Your task to perform on an android device: turn off javascript in the chrome app Image 0: 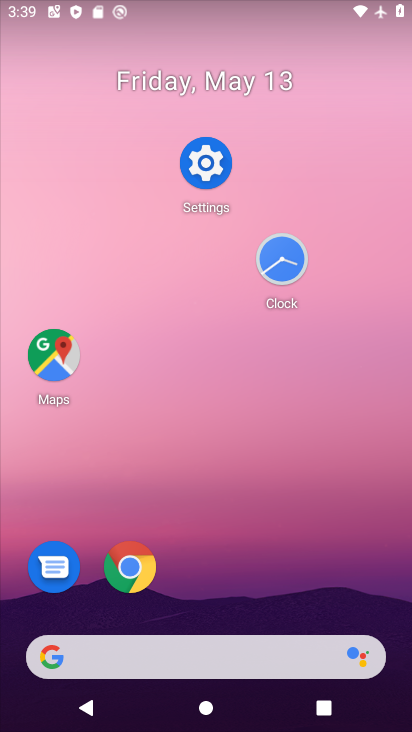
Step 0: click (132, 592)
Your task to perform on an android device: turn off javascript in the chrome app Image 1: 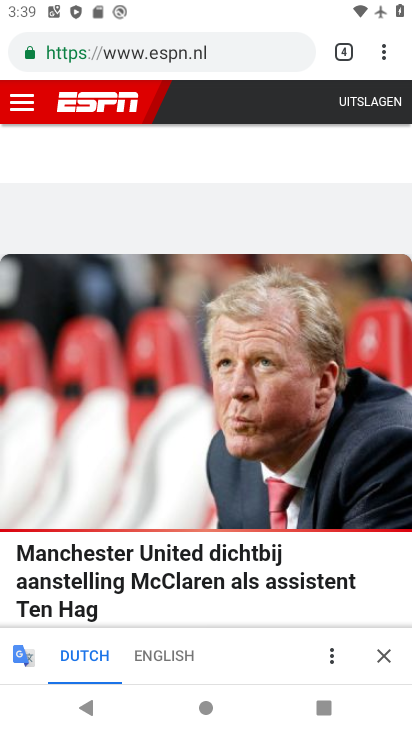
Step 1: click (384, 37)
Your task to perform on an android device: turn off javascript in the chrome app Image 2: 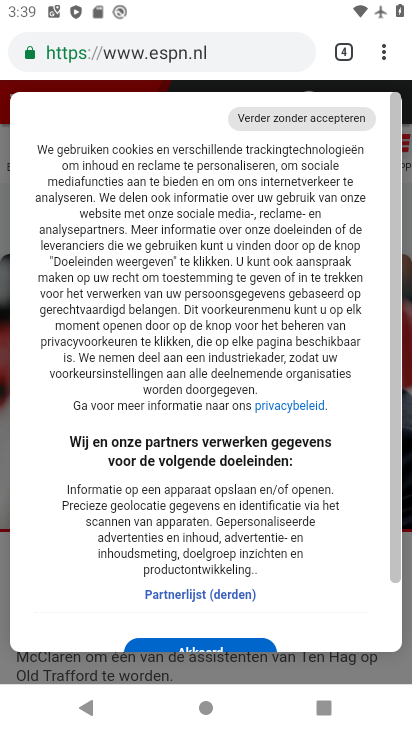
Step 2: click (385, 55)
Your task to perform on an android device: turn off javascript in the chrome app Image 3: 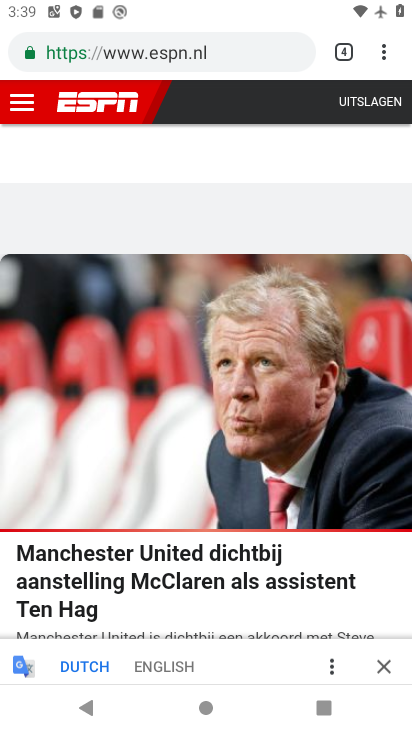
Step 3: click (387, 67)
Your task to perform on an android device: turn off javascript in the chrome app Image 4: 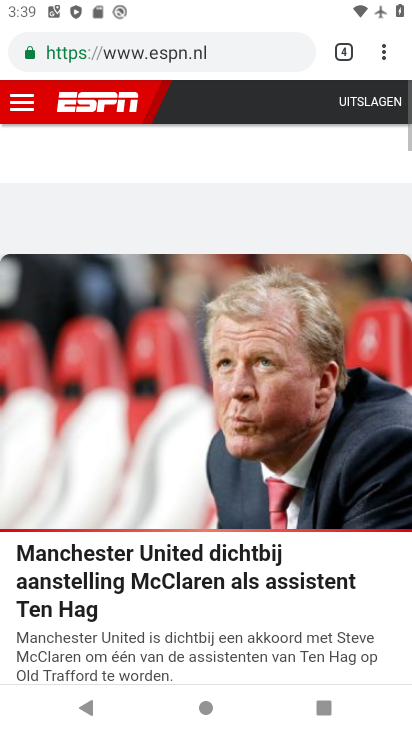
Step 4: click (384, 56)
Your task to perform on an android device: turn off javascript in the chrome app Image 5: 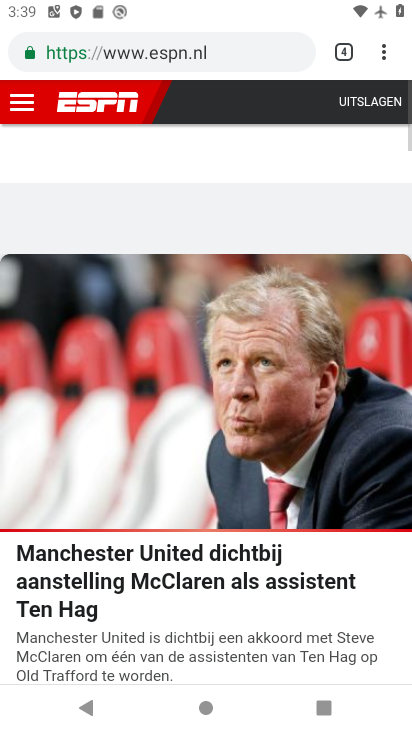
Step 5: click (384, 44)
Your task to perform on an android device: turn off javascript in the chrome app Image 6: 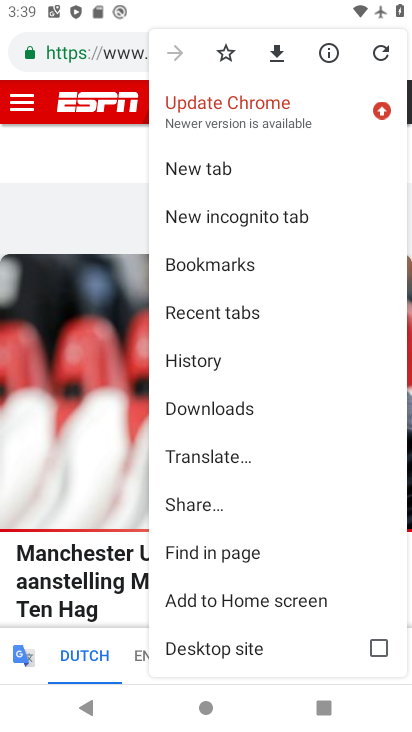
Step 6: drag from (159, 618) to (210, 425)
Your task to perform on an android device: turn off javascript in the chrome app Image 7: 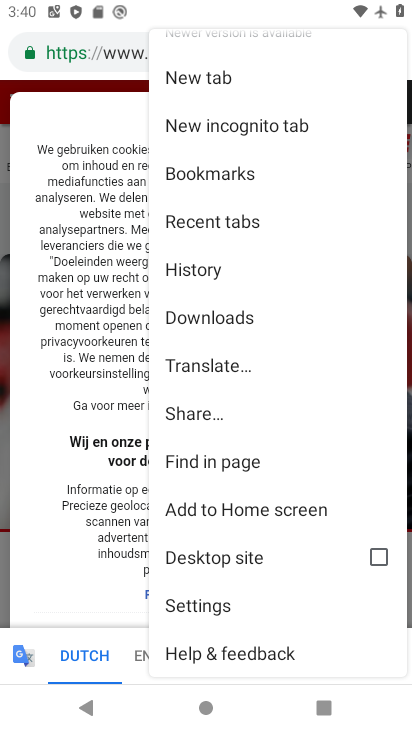
Step 7: click (217, 594)
Your task to perform on an android device: turn off javascript in the chrome app Image 8: 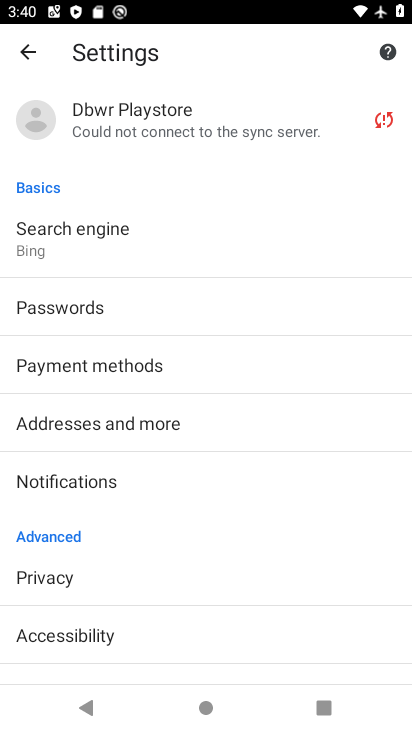
Step 8: drag from (217, 594) to (222, 147)
Your task to perform on an android device: turn off javascript in the chrome app Image 9: 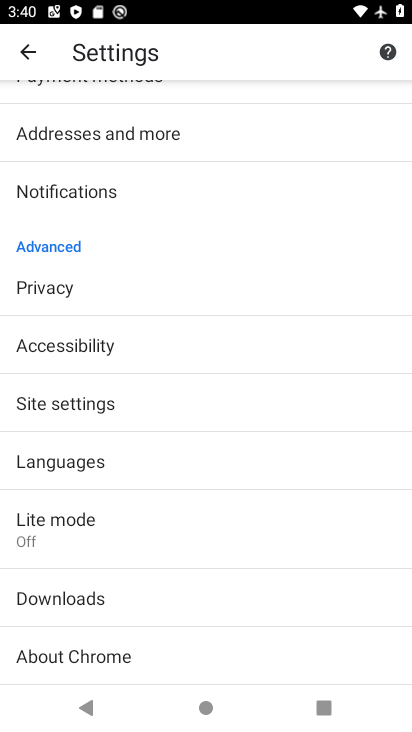
Step 9: click (183, 411)
Your task to perform on an android device: turn off javascript in the chrome app Image 10: 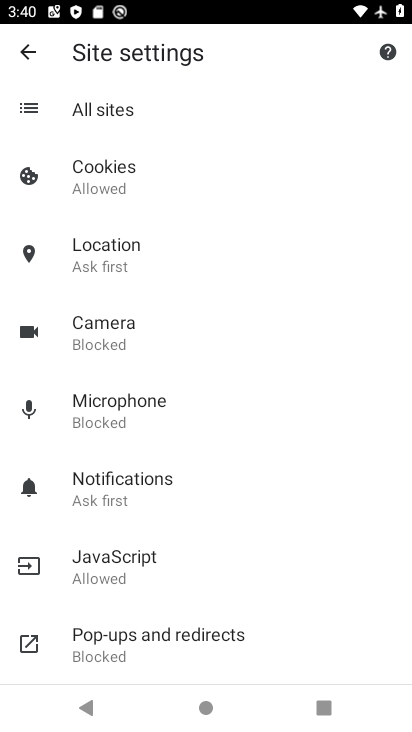
Step 10: click (159, 542)
Your task to perform on an android device: turn off javascript in the chrome app Image 11: 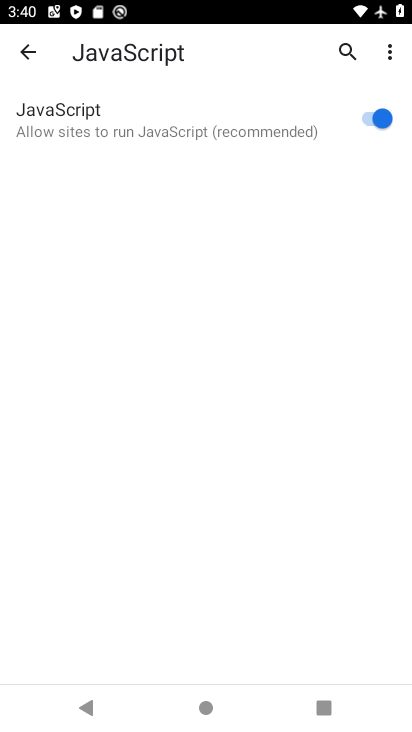
Step 11: click (370, 124)
Your task to perform on an android device: turn off javascript in the chrome app Image 12: 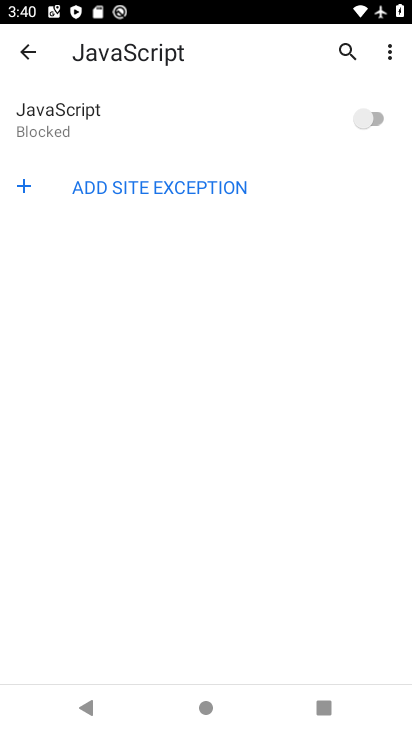
Step 12: task complete